Your task to perform on an android device: turn on the 24-hour format for clock Image 0: 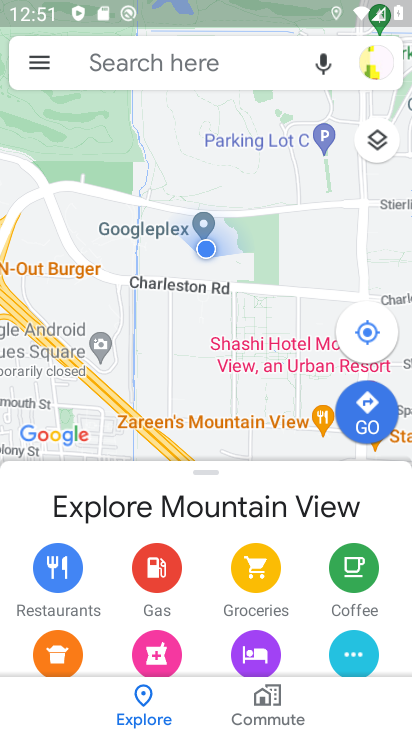
Step 0: press home button
Your task to perform on an android device: turn on the 24-hour format for clock Image 1: 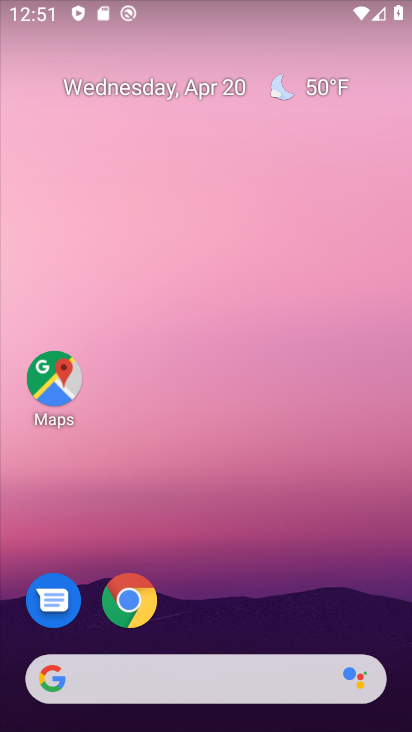
Step 1: drag from (248, 604) to (300, 141)
Your task to perform on an android device: turn on the 24-hour format for clock Image 2: 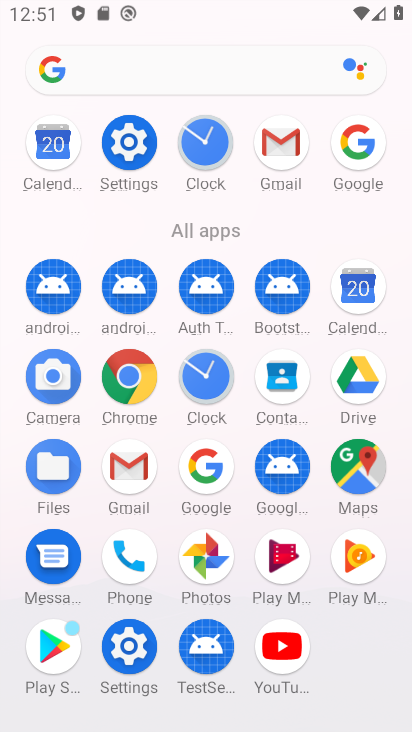
Step 2: click (207, 147)
Your task to perform on an android device: turn on the 24-hour format for clock Image 3: 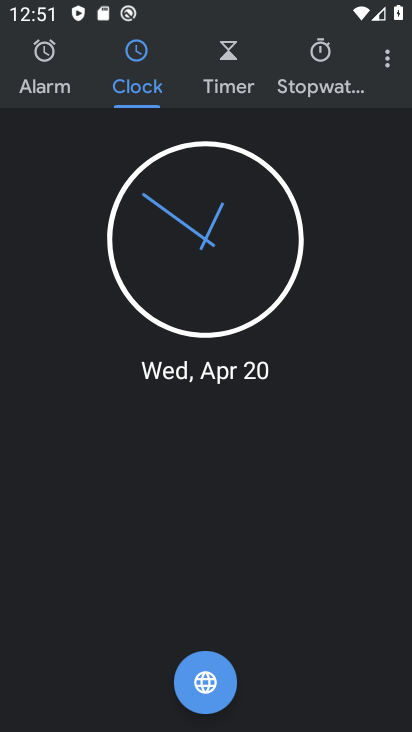
Step 3: click (381, 67)
Your task to perform on an android device: turn on the 24-hour format for clock Image 4: 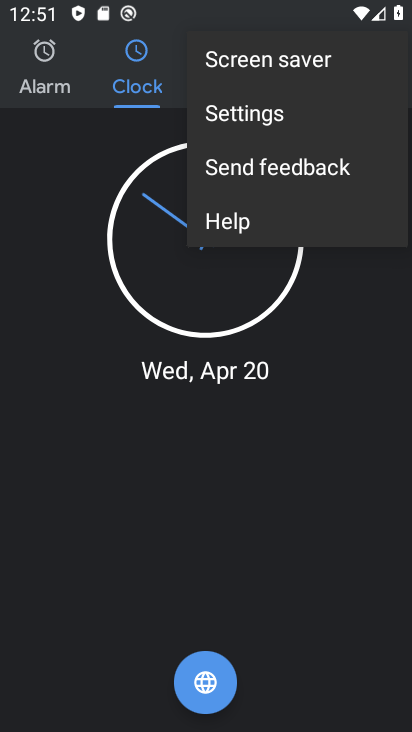
Step 4: click (250, 120)
Your task to perform on an android device: turn on the 24-hour format for clock Image 5: 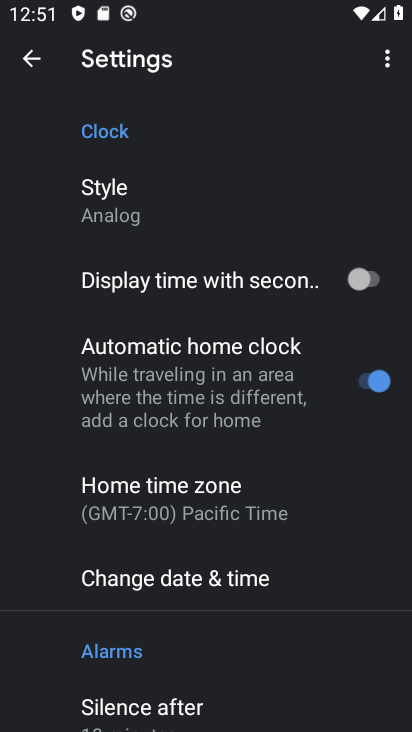
Step 5: drag from (211, 573) to (220, 223)
Your task to perform on an android device: turn on the 24-hour format for clock Image 6: 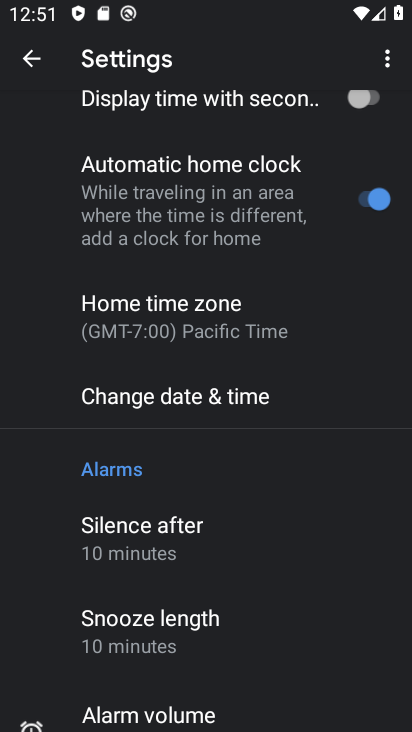
Step 6: drag from (181, 560) to (204, 212)
Your task to perform on an android device: turn on the 24-hour format for clock Image 7: 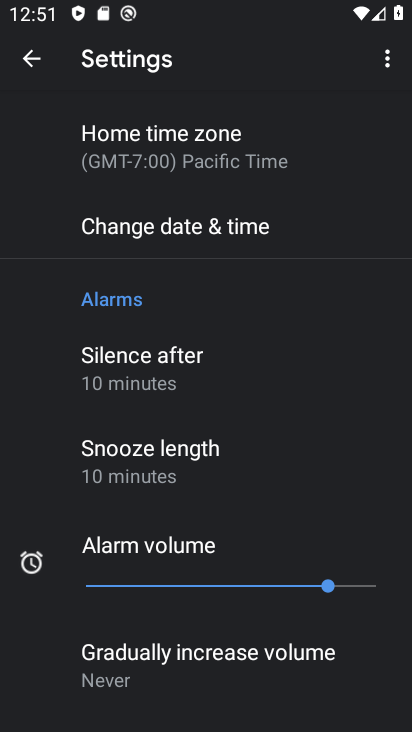
Step 7: click (205, 237)
Your task to perform on an android device: turn on the 24-hour format for clock Image 8: 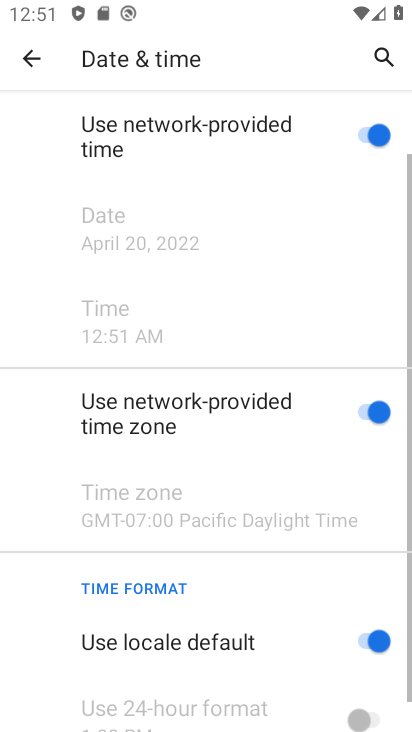
Step 8: drag from (216, 594) to (252, 185)
Your task to perform on an android device: turn on the 24-hour format for clock Image 9: 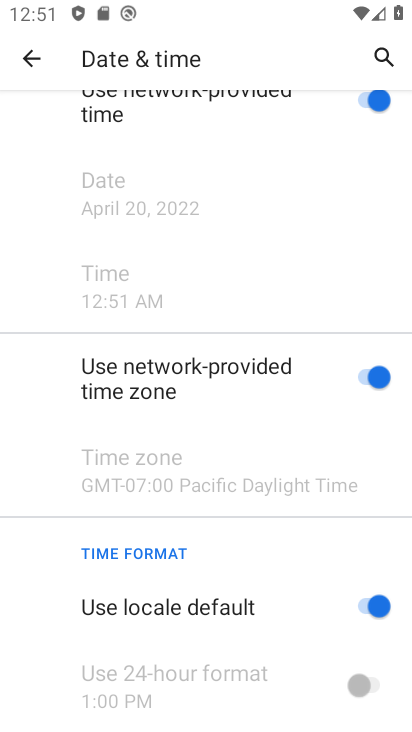
Step 9: click (377, 604)
Your task to perform on an android device: turn on the 24-hour format for clock Image 10: 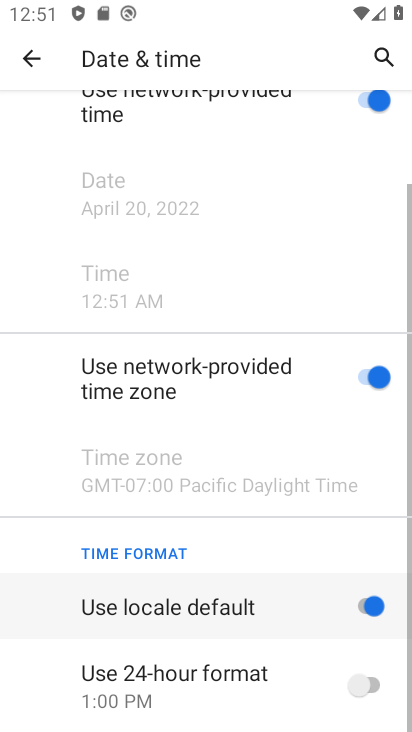
Step 10: click (372, 683)
Your task to perform on an android device: turn on the 24-hour format for clock Image 11: 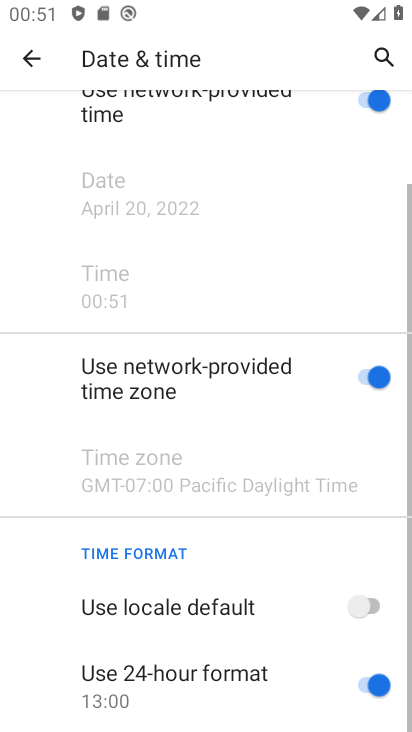
Step 11: task complete